Your task to perform on an android device: Open the map Image 0: 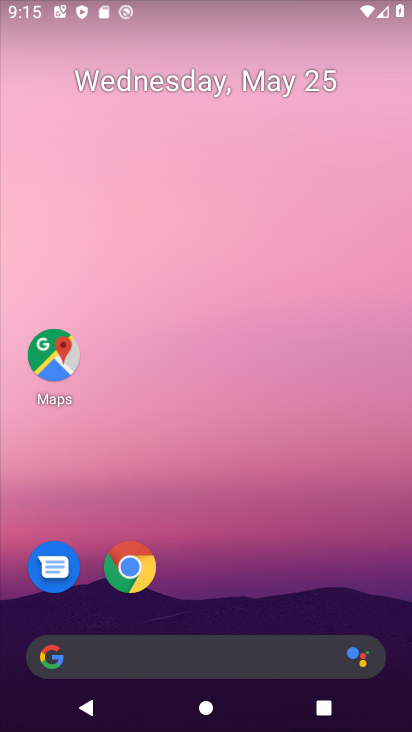
Step 0: click (44, 358)
Your task to perform on an android device: Open the map Image 1: 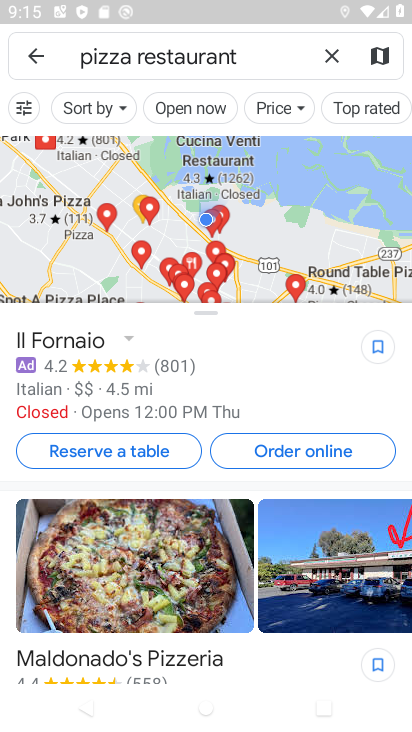
Step 1: task complete